Your task to perform on an android device: What is the recent news? Image 0: 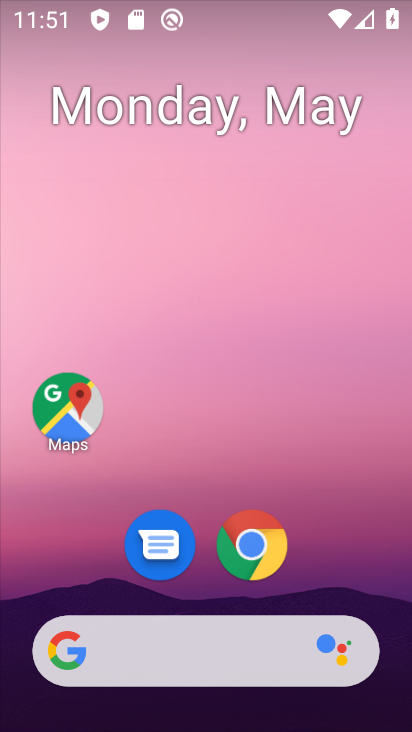
Step 0: drag from (190, 25) to (226, 463)
Your task to perform on an android device: What is the recent news? Image 1: 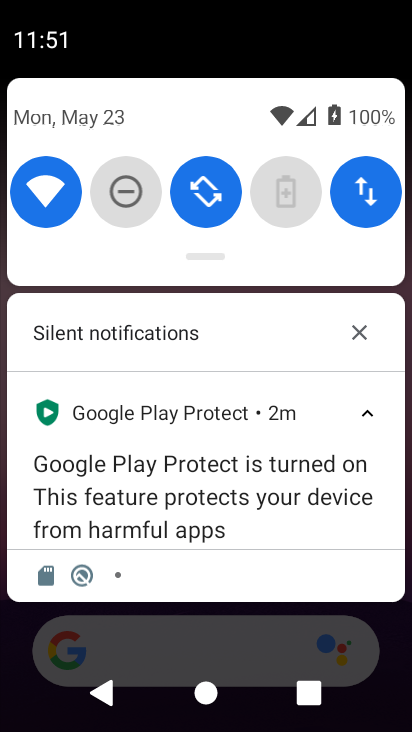
Step 1: task complete